Your task to perform on an android device: Do I have any events this weekend? Image 0: 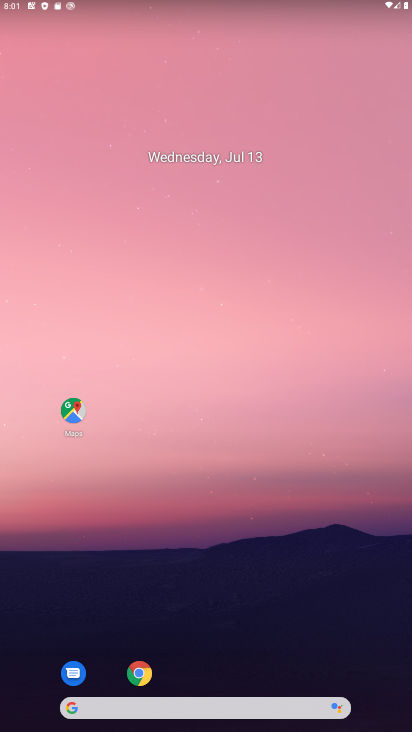
Step 0: drag from (242, 550) to (182, 169)
Your task to perform on an android device: Do I have any events this weekend? Image 1: 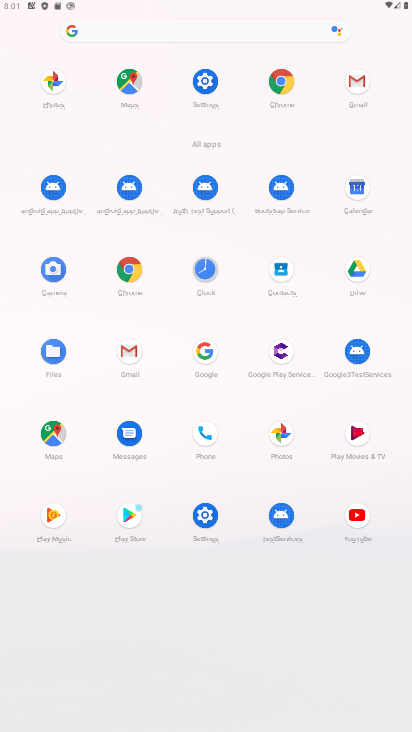
Step 1: click (359, 191)
Your task to perform on an android device: Do I have any events this weekend? Image 2: 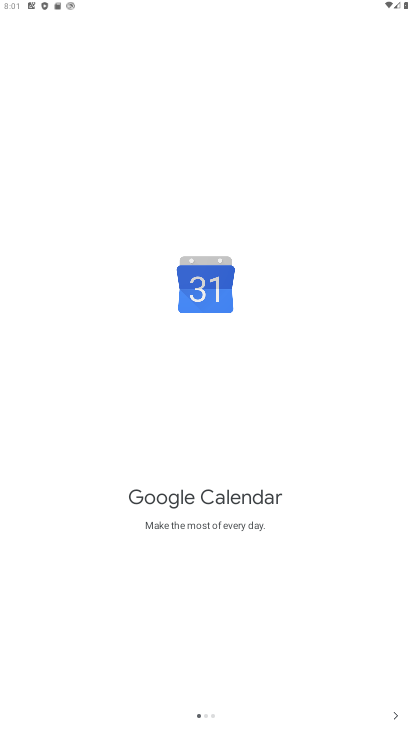
Step 2: click (401, 717)
Your task to perform on an android device: Do I have any events this weekend? Image 3: 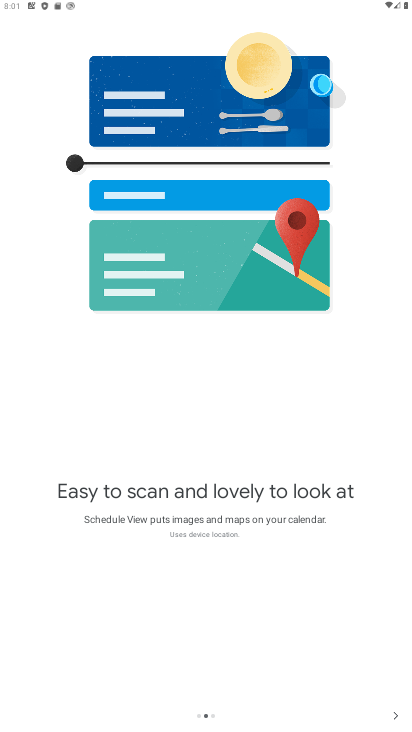
Step 3: click (401, 717)
Your task to perform on an android device: Do I have any events this weekend? Image 4: 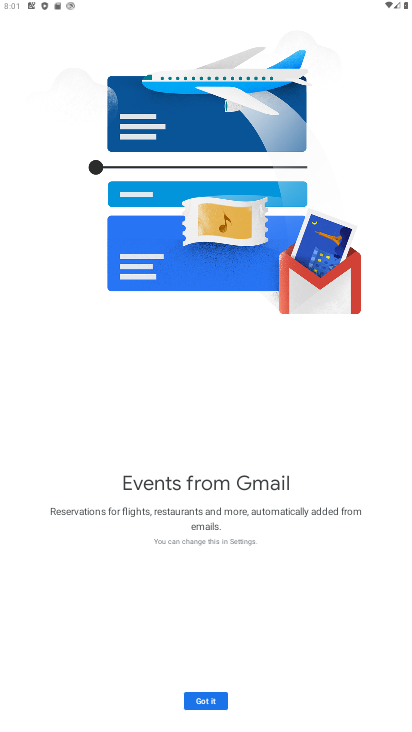
Step 4: click (209, 697)
Your task to perform on an android device: Do I have any events this weekend? Image 5: 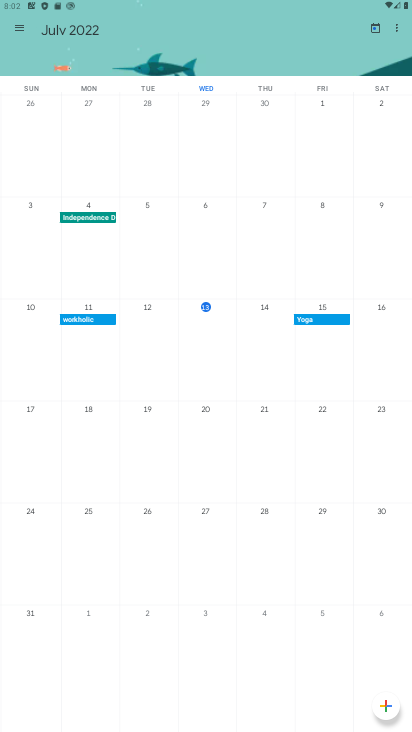
Step 5: click (205, 308)
Your task to perform on an android device: Do I have any events this weekend? Image 6: 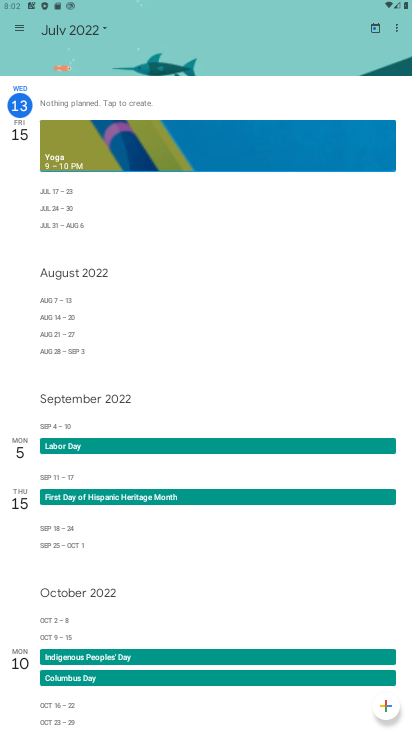
Step 6: click (18, 21)
Your task to perform on an android device: Do I have any events this weekend? Image 7: 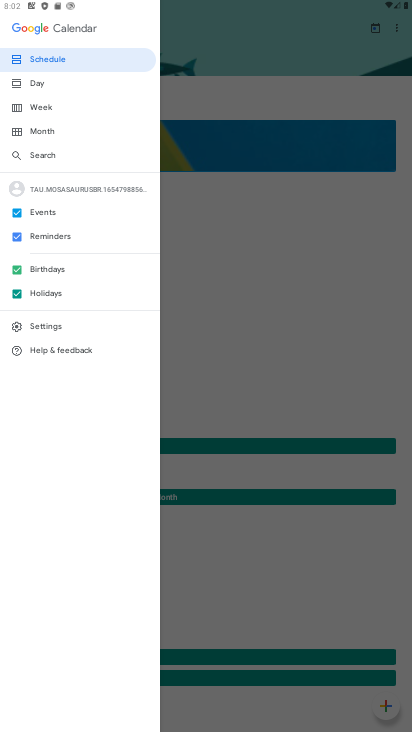
Step 7: click (50, 98)
Your task to perform on an android device: Do I have any events this weekend? Image 8: 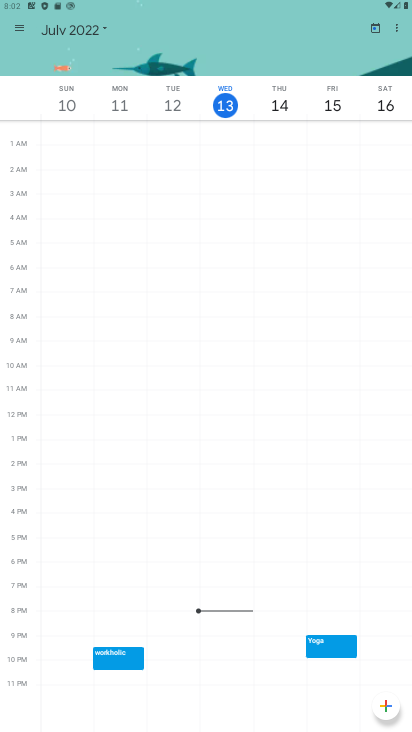
Step 8: click (341, 111)
Your task to perform on an android device: Do I have any events this weekend? Image 9: 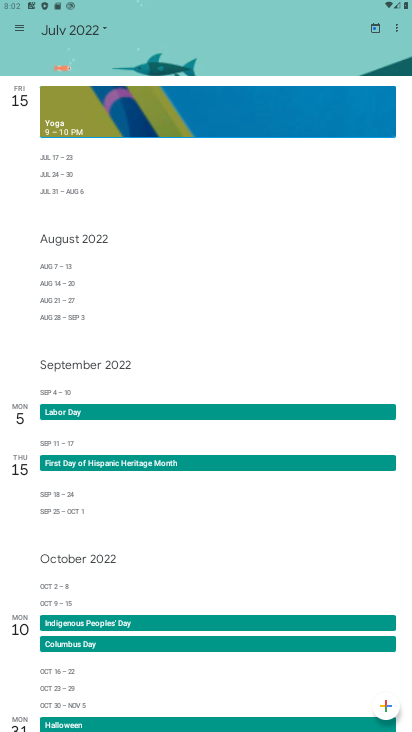
Step 9: click (18, 31)
Your task to perform on an android device: Do I have any events this weekend? Image 10: 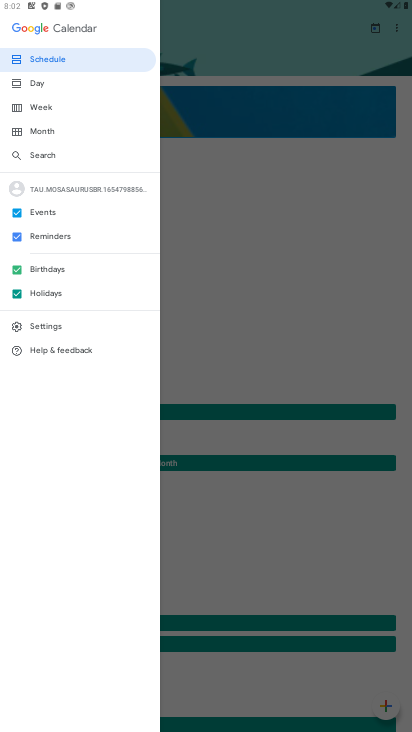
Step 10: click (30, 106)
Your task to perform on an android device: Do I have any events this weekend? Image 11: 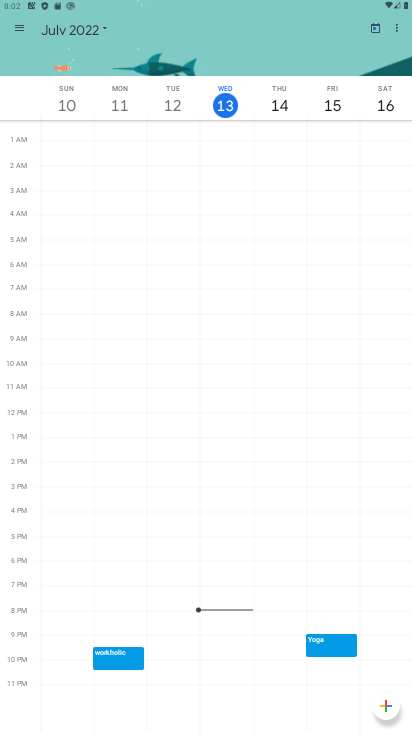
Step 11: click (383, 101)
Your task to perform on an android device: Do I have any events this weekend? Image 12: 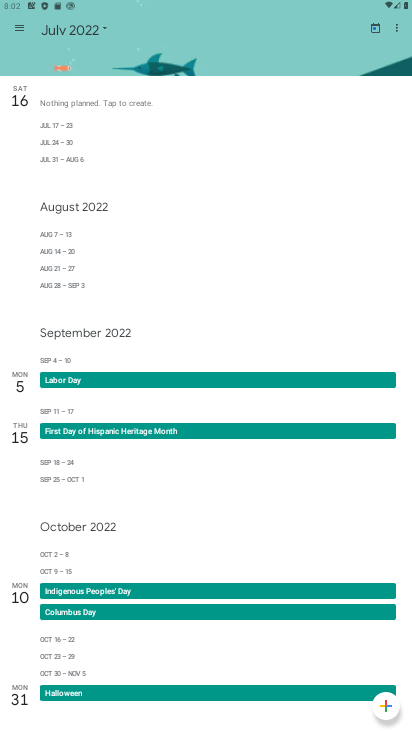
Step 12: task complete